Your task to perform on an android device: Open Amazon Image 0: 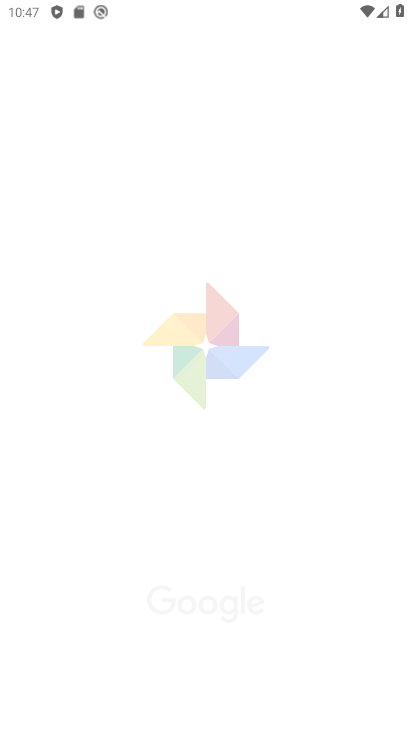
Step 0: drag from (249, 627) to (240, 225)
Your task to perform on an android device: Open Amazon Image 1: 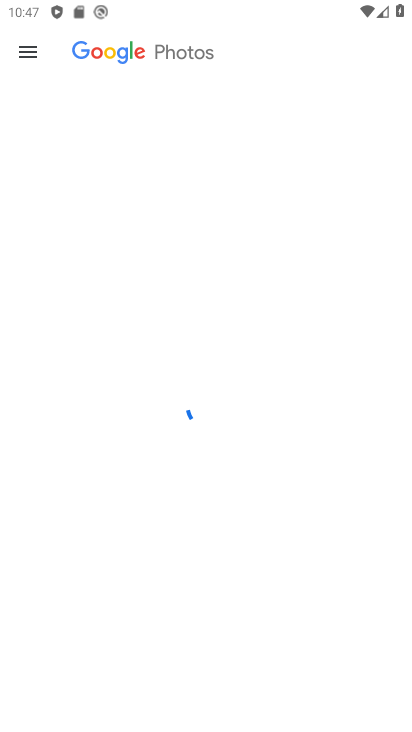
Step 1: press home button
Your task to perform on an android device: Open Amazon Image 2: 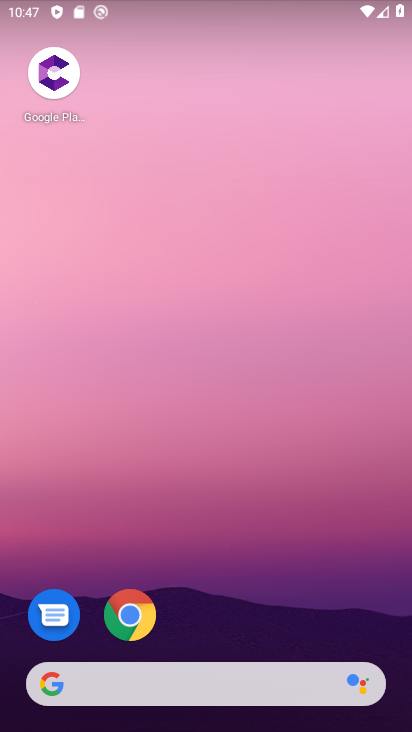
Step 2: click (130, 625)
Your task to perform on an android device: Open Amazon Image 3: 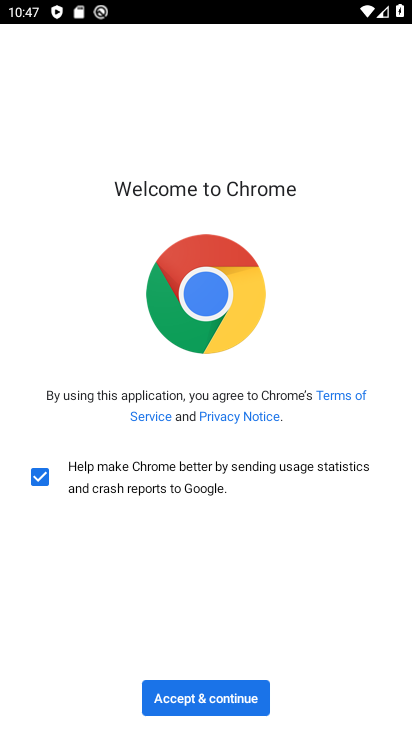
Step 3: click (234, 706)
Your task to perform on an android device: Open Amazon Image 4: 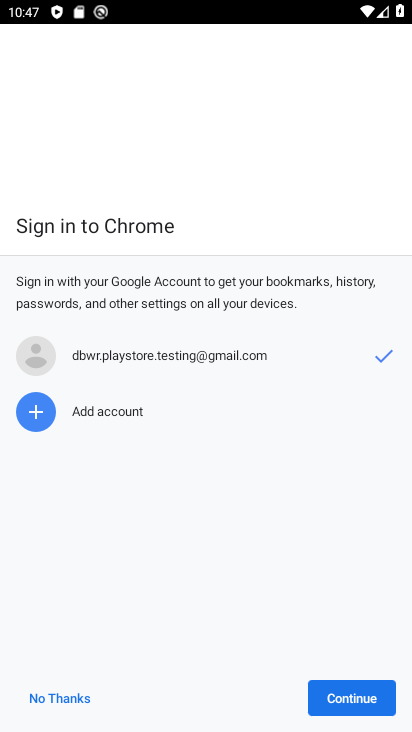
Step 4: click (360, 702)
Your task to perform on an android device: Open Amazon Image 5: 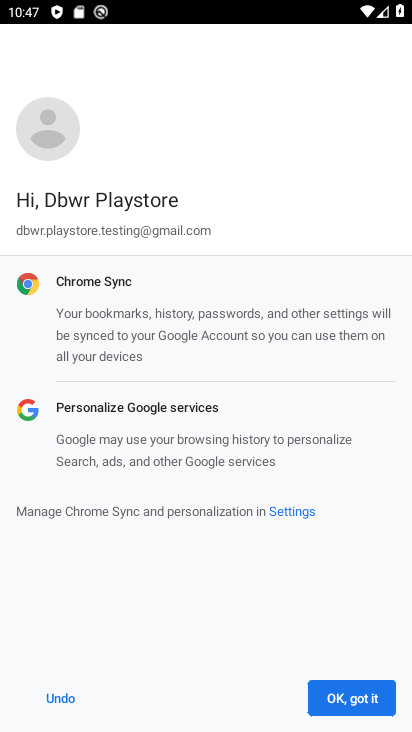
Step 5: click (360, 702)
Your task to perform on an android device: Open Amazon Image 6: 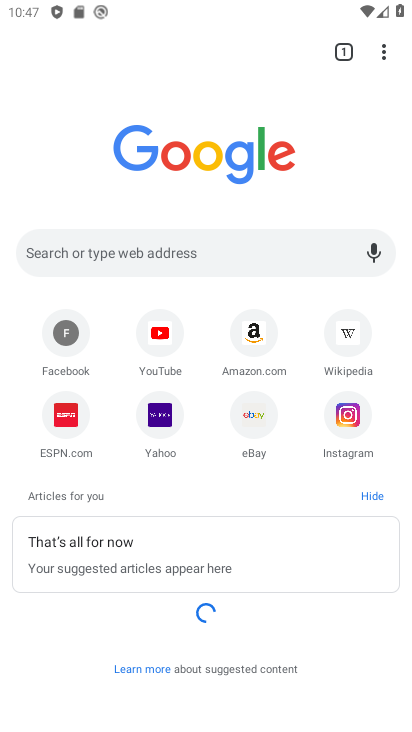
Step 6: click (246, 358)
Your task to perform on an android device: Open Amazon Image 7: 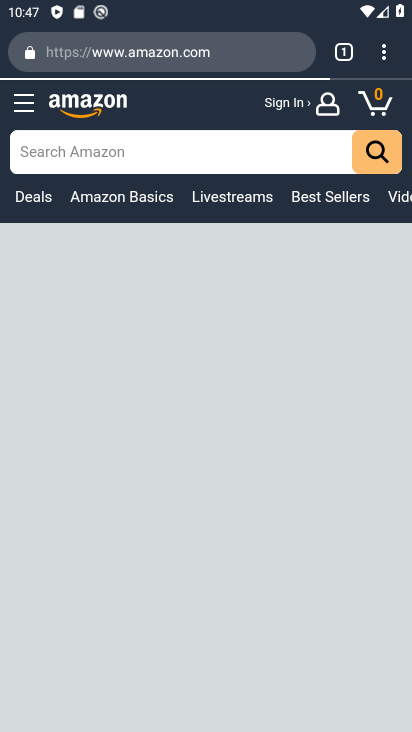
Step 7: task complete